Your task to perform on an android device: Go to Wikipedia Image 0: 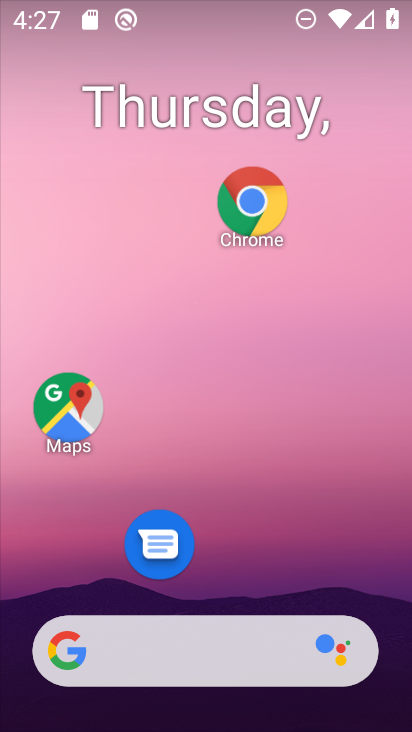
Step 0: click (275, 221)
Your task to perform on an android device: Go to Wikipedia Image 1: 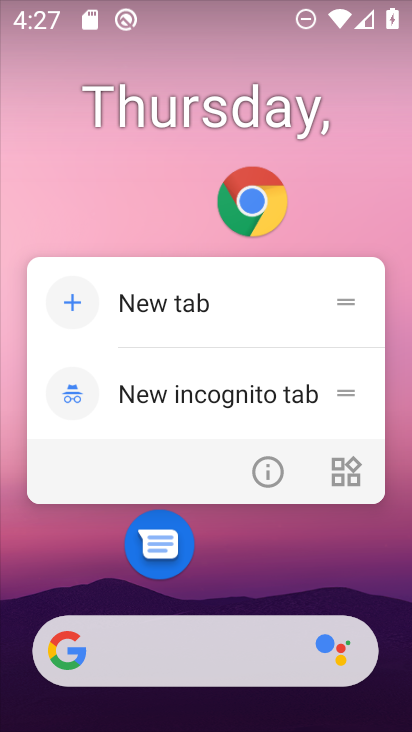
Step 1: click (272, 219)
Your task to perform on an android device: Go to Wikipedia Image 2: 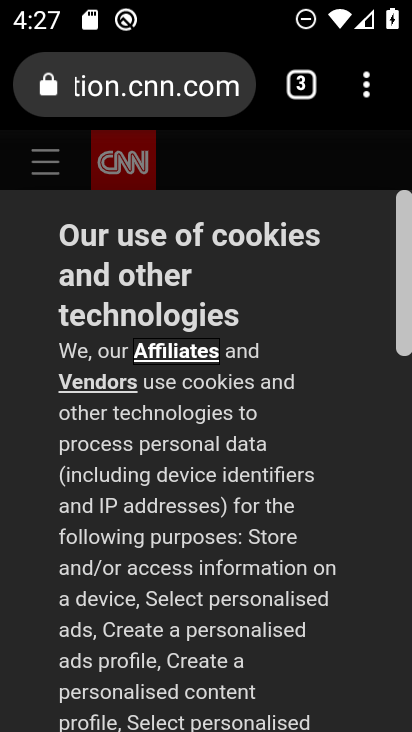
Step 2: click (297, 95)
Your task to perform on an android device: Go to Wikipedia Image 3: 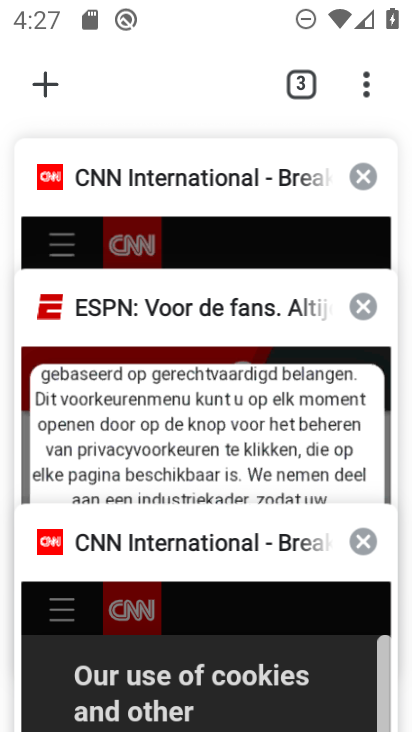
Step 3: click (46, 93)
Your task to perform on an android device: Go to Wikipedia Image 4: 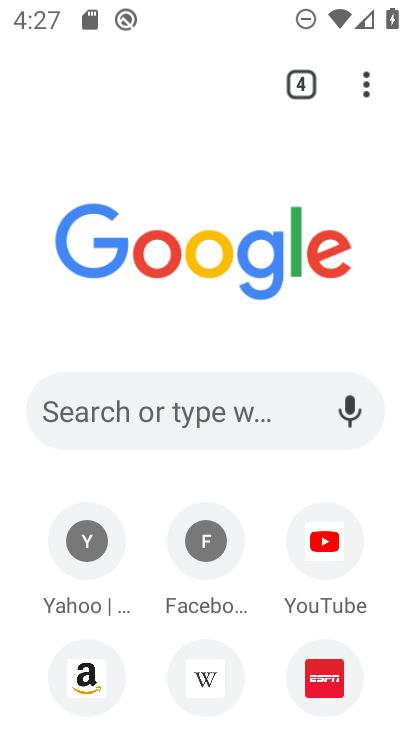
Step 4: click (208, 682)
Your task to perform on an android device: Go to Wikipedia Image 5: 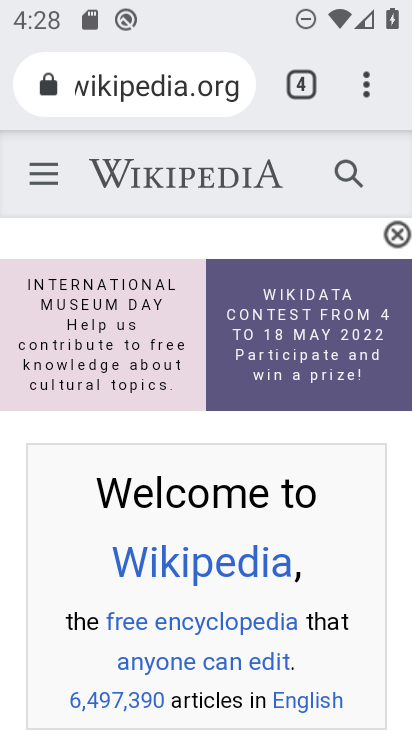
Step 5: task complete